Your task to perform on an android device: See recent photos Image 0: 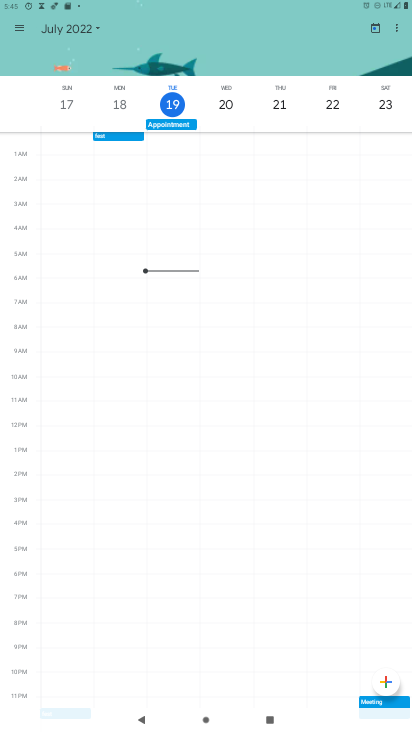
Step 0: press home button
Your task to perform on an android device: See recent photos Image 1: 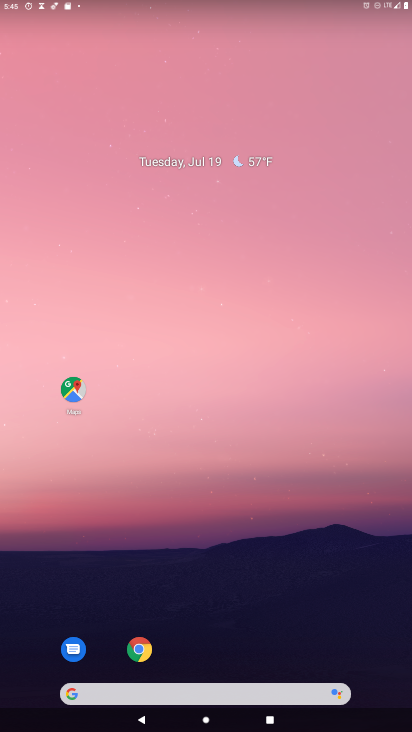
Step 1: drag from (206, 642) to (226, 165)
Your task to perform on an android device: See recent photos Image 2: 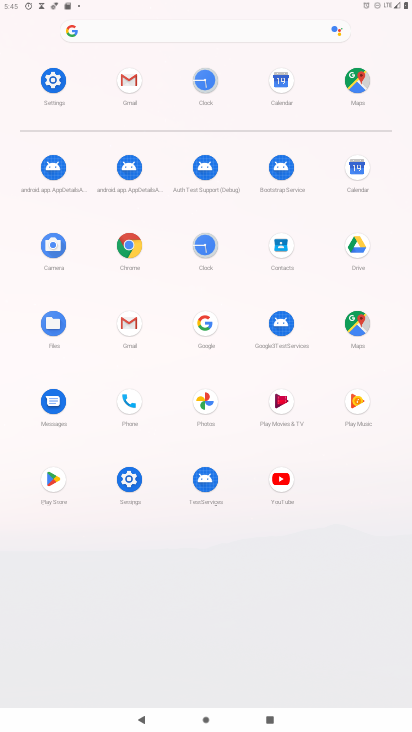
Step 2: click (204, 402)
Your task to perform on an android device: See recent photos Image 3: 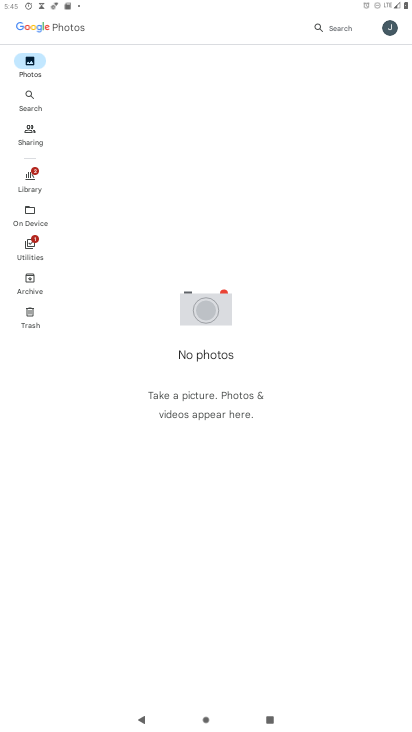
Step 3: click (30, 177)
Your task to perform on an android device: See recent photos Image 4: 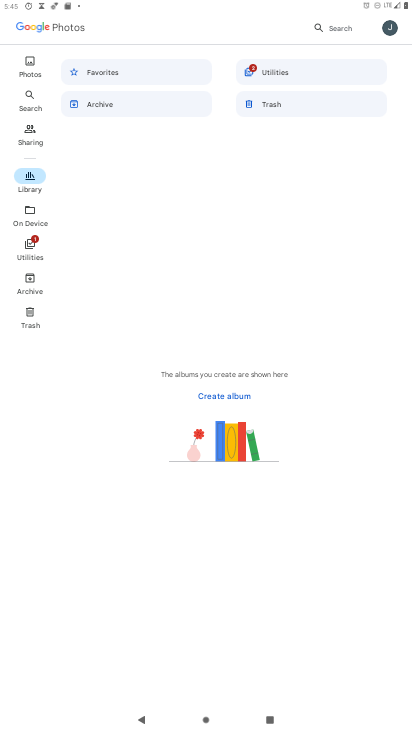
Step 4: task complete